Your task to perform on an android device: change the clock display to digital Image 0: 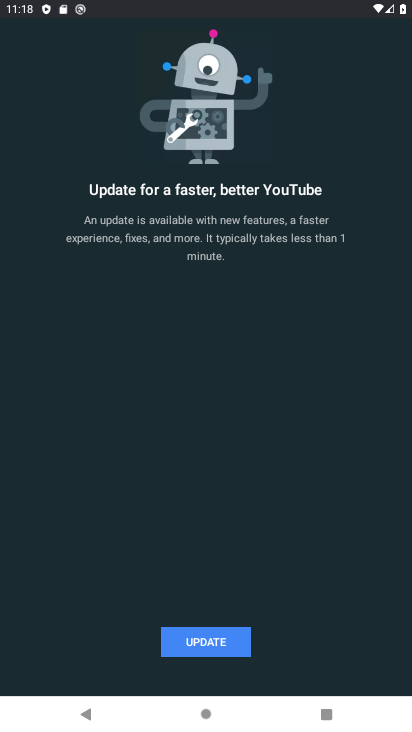
Step 0: press home button
Your task to perform on an android device: change the clock display to digital Image 1: 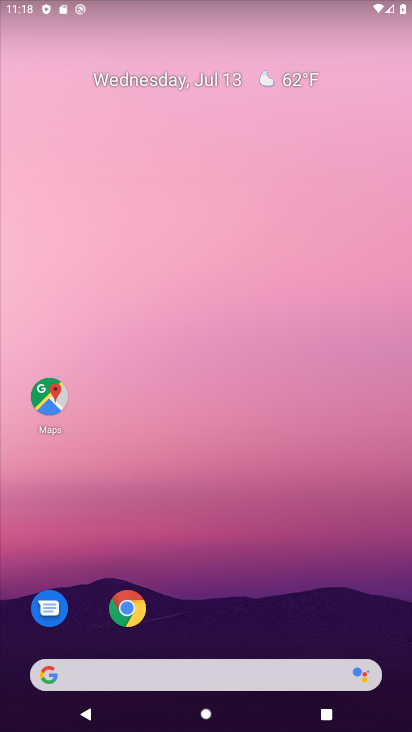
Step 1: drag from (242, 722) to (238, 217)
Your task to perform on an android device: change the clock display to digital Image 2: 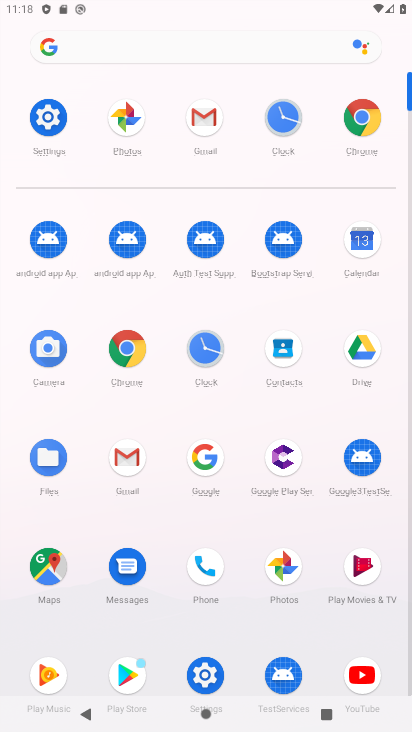
Step 2: click (208, 345)
Your task to perform on an android device: change the clock display to digital Image 3: 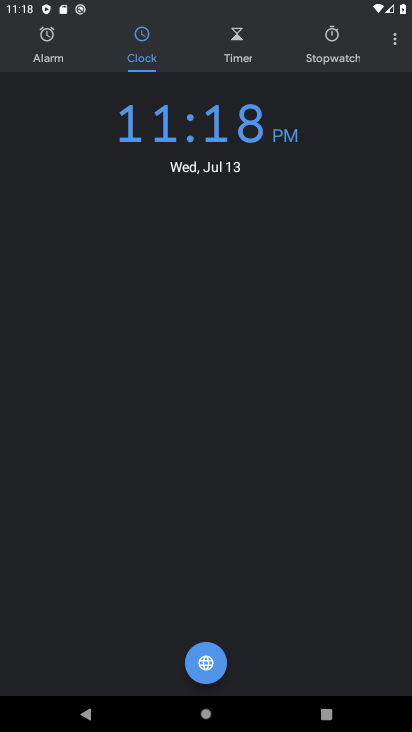
Step 3: click (395, 43)
Your task to perform on an android device: change the clock display to digital Image 4: 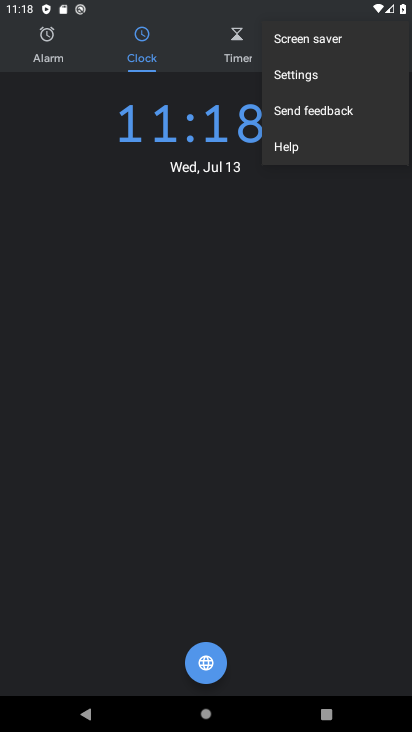
Step 4: click (293, 76)
Your task to perform on an android device: change the clock display to digital Image 5: 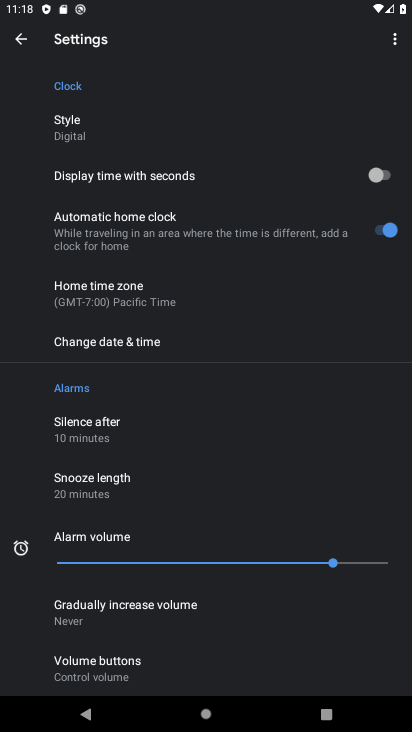
Step 5: task complete